Your task to perform on an android device: Is it going to rain tomorrow? Image 0: 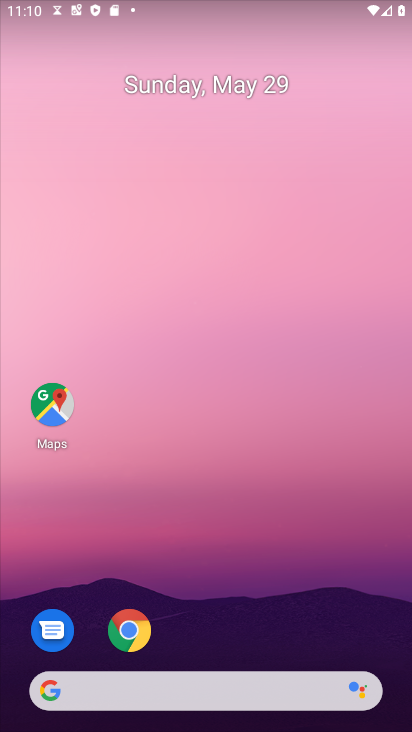
Step 0: click (227, 678)
Your task to perform on an android device: Is it going to rain tomorrow? Image 1: 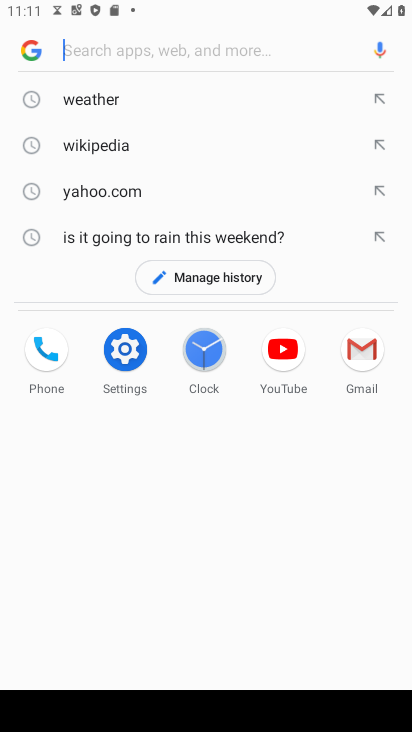
Step 1: click (142, 98)
Your task to perform on an android device: Is it going to rain tomorrow? Image 2: 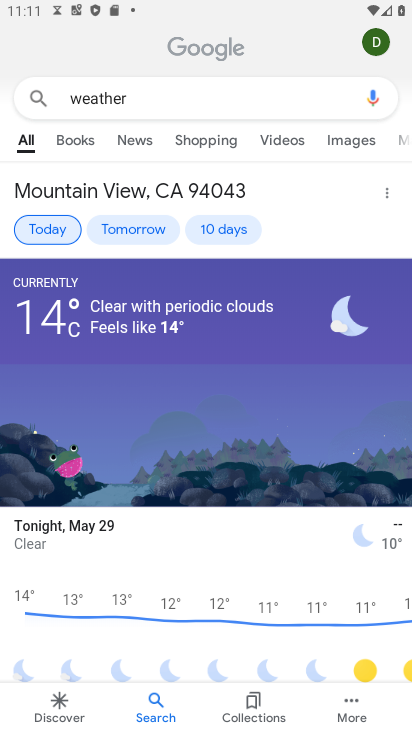
Step 2: click (144, 234)
Your task to perform on an android device: Is it going to rain tomorrow? Image 3: 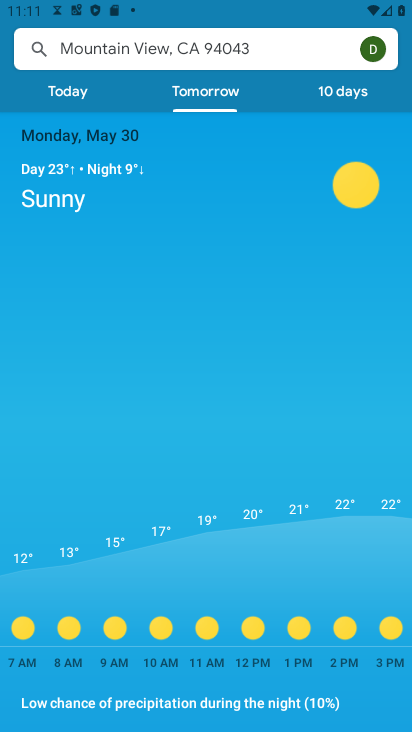
Step 3: task complete